Your task to perform on an android device: Go to CNN.com Image 0: 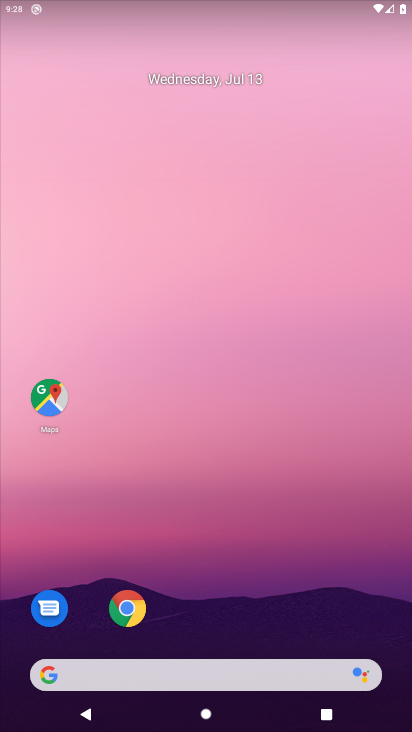
Step 0: click (147, 654)
Your task to perform on an android device: Go to CNN.com Image 1: 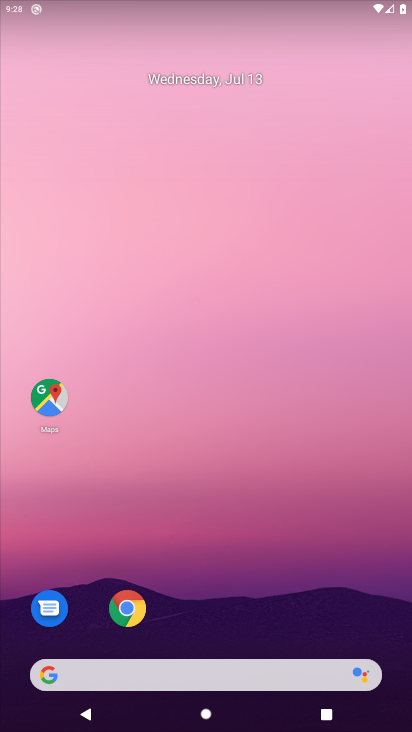
Step 1: click (136, 681)
Your task to perform on an android device: Go to CNN.com Image 2: 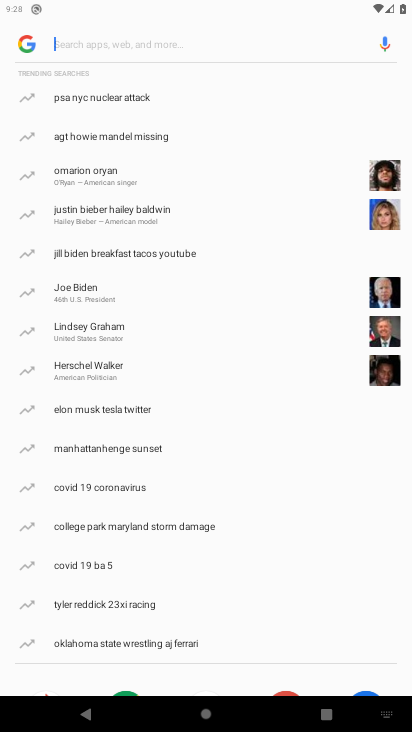
Step 2: type " CNN.com"
Your task to perform on an android device: Go to CNN.com Image 3: 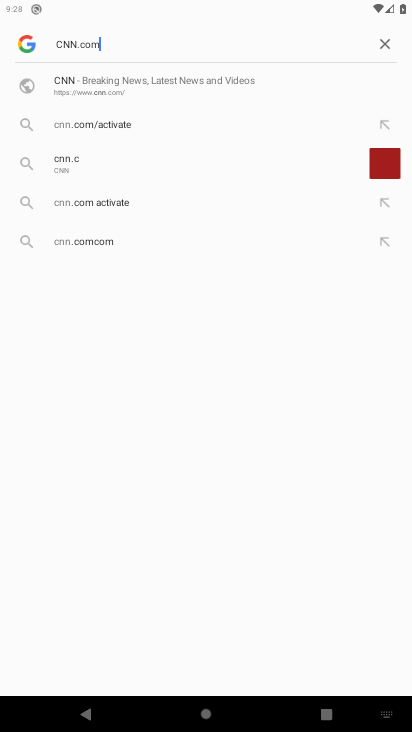
Step 3: type ""
Your task to perform on an android device: Go to CNN.com Image 4: 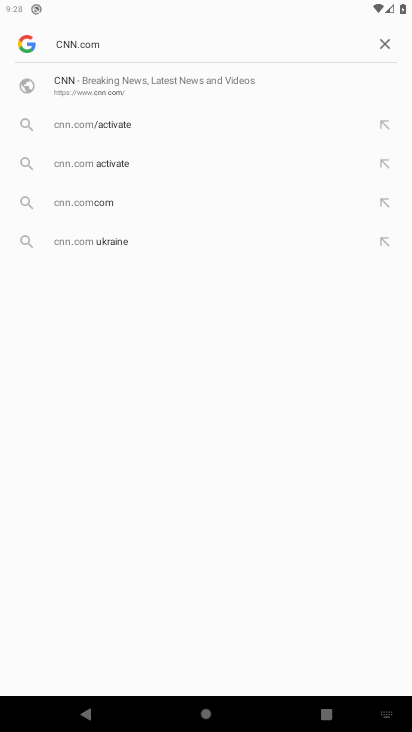
Step 4: click (106, 88)
Your task to perform on an android device: Go to CNN.com Image 5: 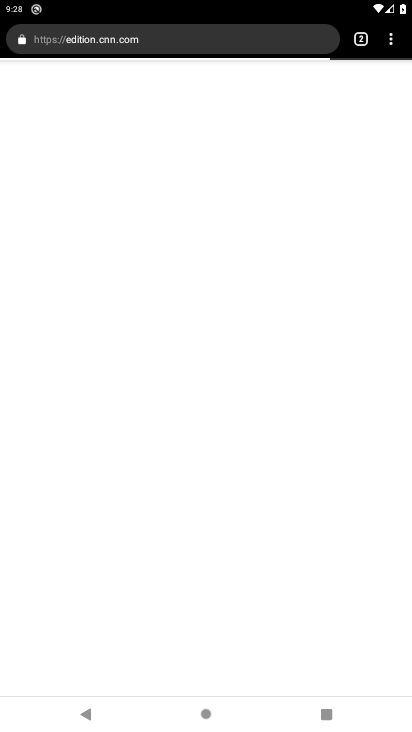
Step 5: task complete